Your task to perform on an android device: Set the phone to "Do not disturb". Image 0: 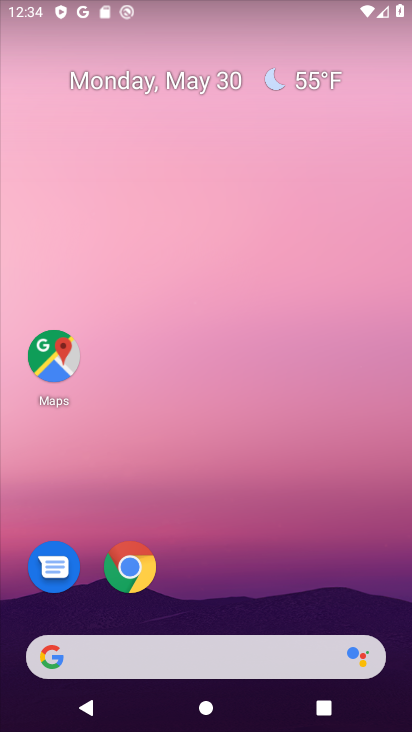
Step 0: drag from (196, 11) to (202, 591)
Your task to perform on an android device: Set the phone to "Do not disturb". Image 1: 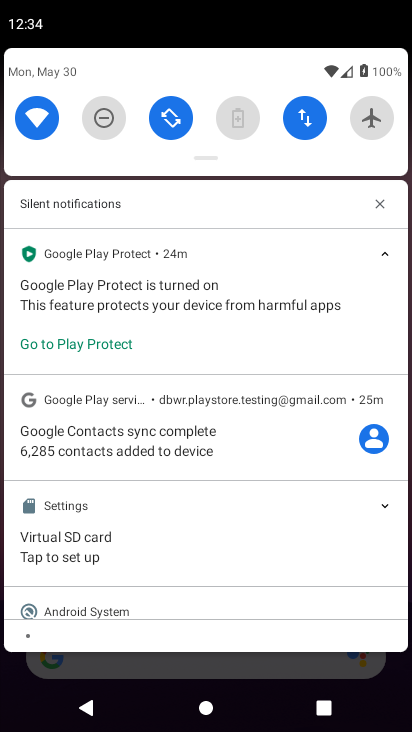
Step 1: click (102, 116)
Your task to perform on an android device: Set the phone to "Do not disturb". Image 2: 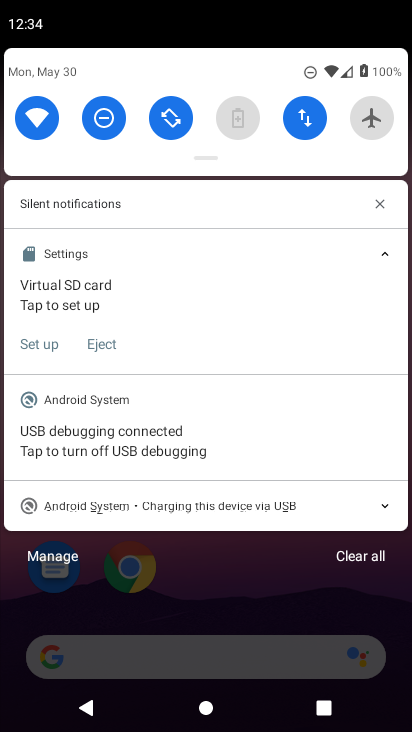
Step 2: task complete